Your task to perform on an android device: turn on sleep mode Image 0: 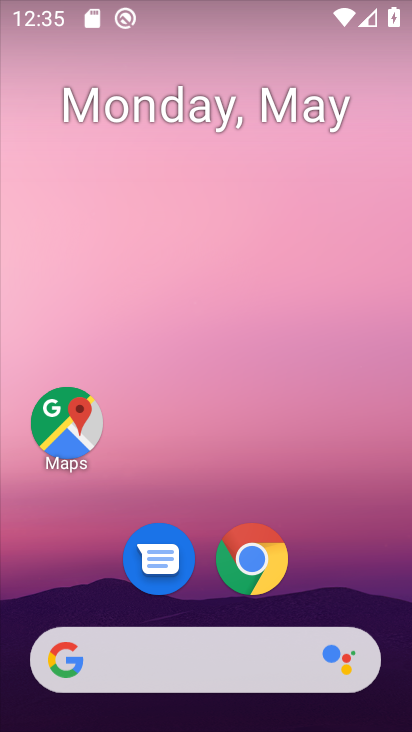
Step 0: drag from (179, 585) to (230, 113)
Your task to perform on an android device: turn on sleep mode Image 1: 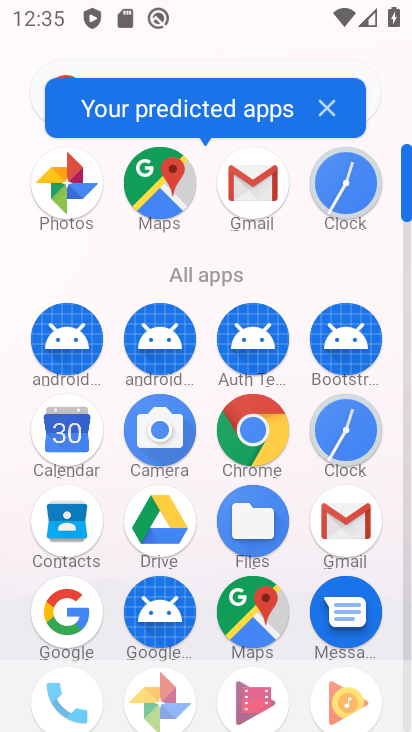
Step 1: drag from (177, 590) to (253, 178)
Your task to perform on an android device: turn on sleep mode Image 2: 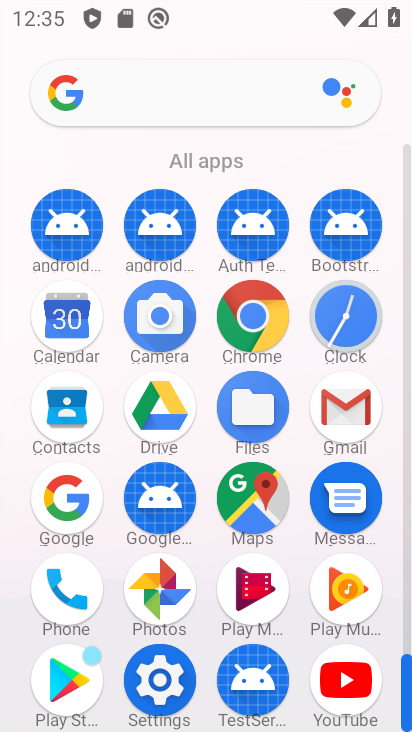
Step 2: click (162, 694)
Your task to perform on an android device: turn on sleep mode Image 3: 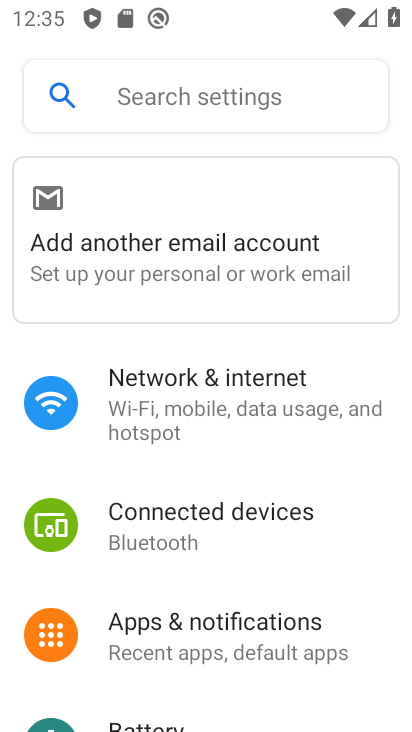
Step 3: click (156, 81)
Your task to perform on an android device: turn on sleep mode Image 4: 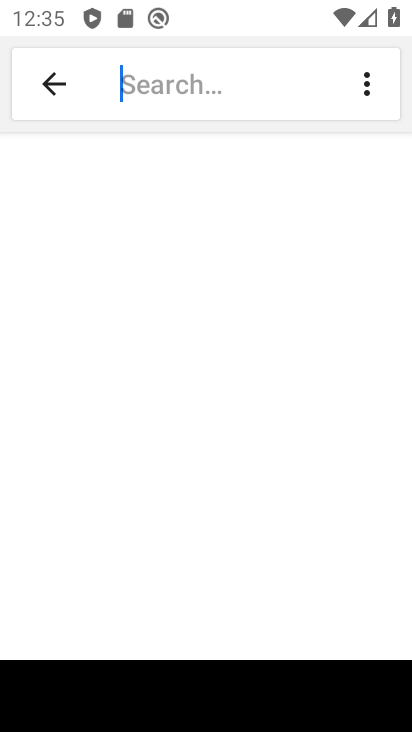
Step 4: type "sleep mode"
Your task to perform on an android device: turn on sleep mode Image 5: 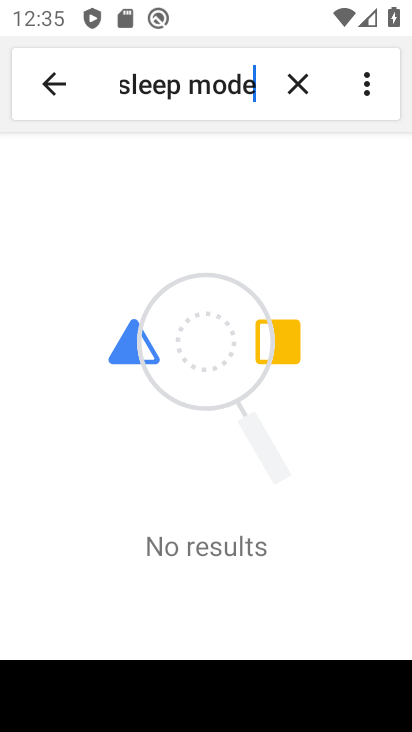
Step 5: task complete